Your task to perform on an android device: turn on bluetooth scan Image 0: 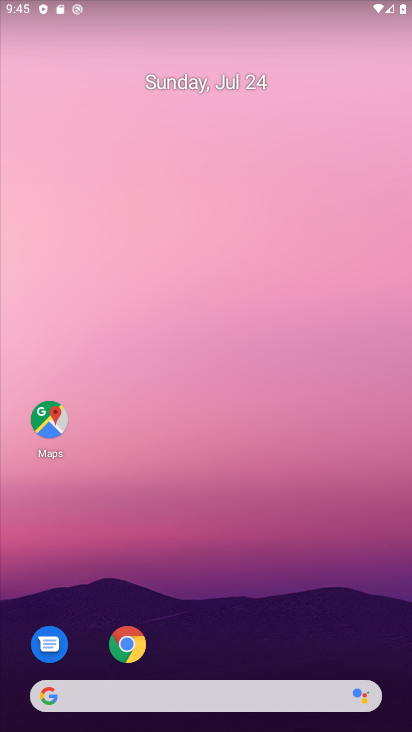
Step 0: drag from (224, 529) to (169, 22)
Your task to perform on an android device: turn on bluetooth scan Image 1: 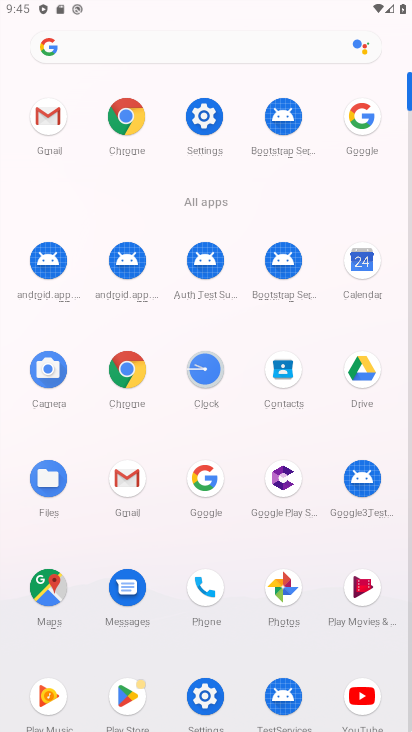
Step 1: click (190, 113)
Your task to perform on an android device: turn on bluetooth scan Image 2: 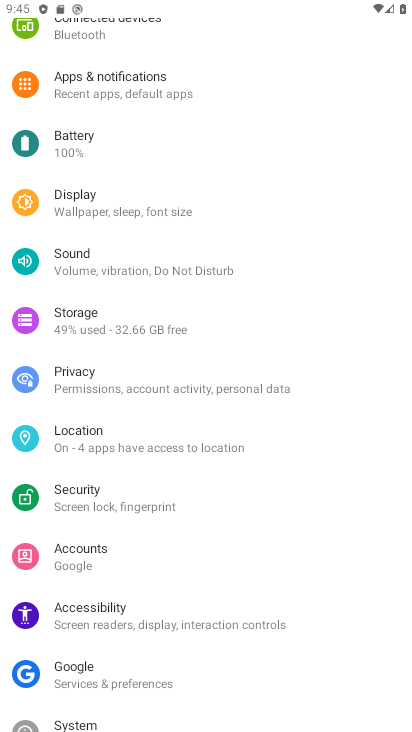
Step 2: click (93, 441)
Your task to perform on an android device: turn on bluetooth scan Image 3: 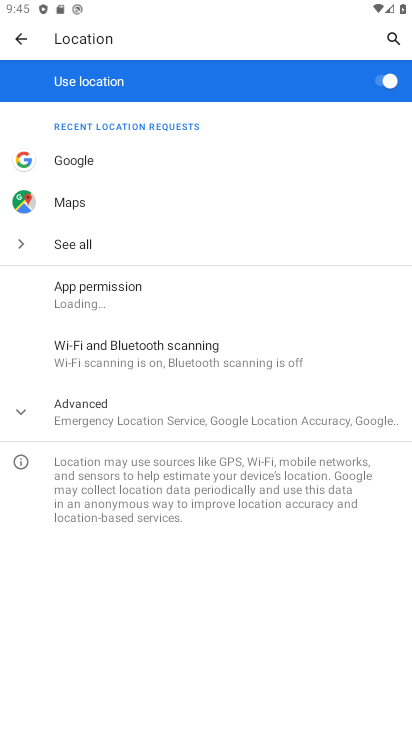
Step 3: click (114, 349)
Your task to perform on an android device: turn on bluetooth scan Image 4: 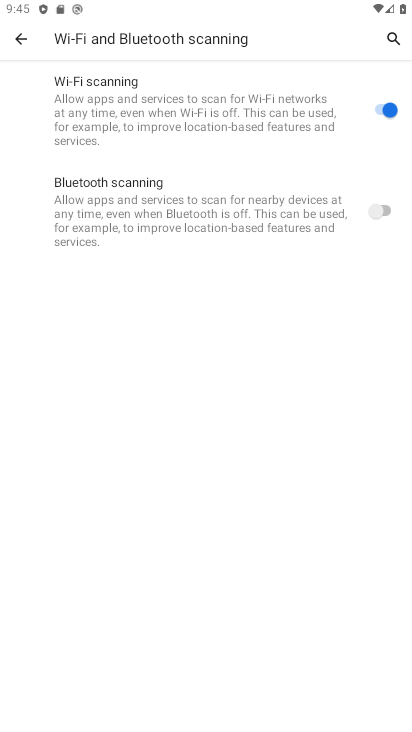
Step 4: click (369, 214)
Your task to perform on an android device: turn on bluetooth scan Image 5: 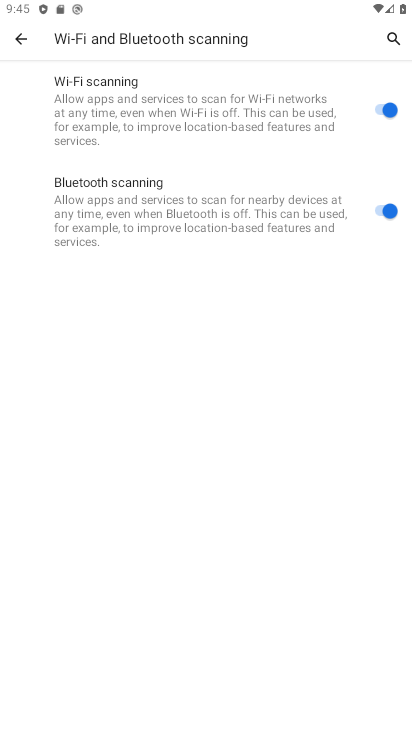
Step 5: task complete